Your task to perform on an android device: What's the weather going to be tomorrow? Image 0: 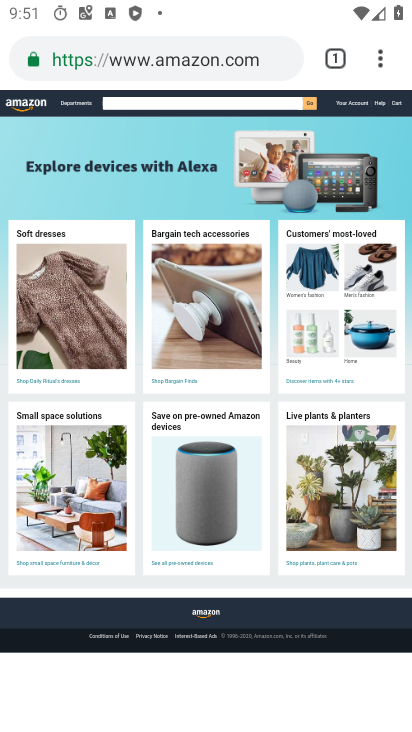
Step 0: press home button
Your task to perform on an android device: What's the weather going to be tomorrow? Image 1: 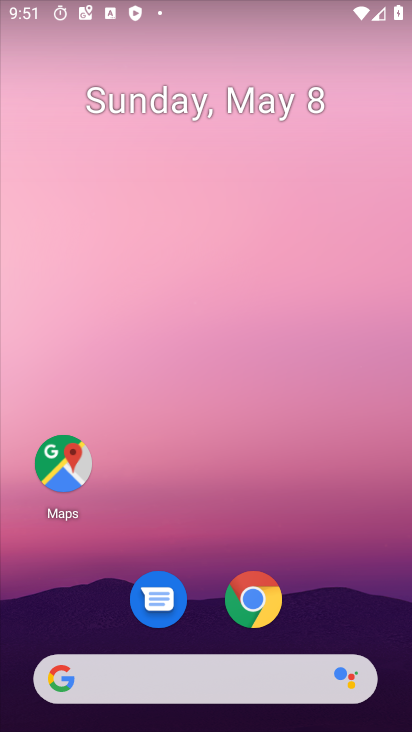
Step 1: drag from (165, 613) to (182, 94)
Your task to perform on an android device: What's the weather going to be tomorrow? Image 2: 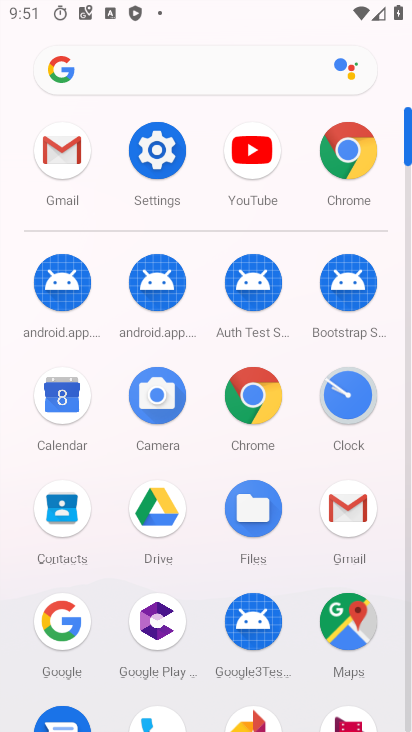
Step 2: drag from (233, 601) to (266, 308)
Your task to perform on an android device: What's the weather going to be tomorrow? Image 3: 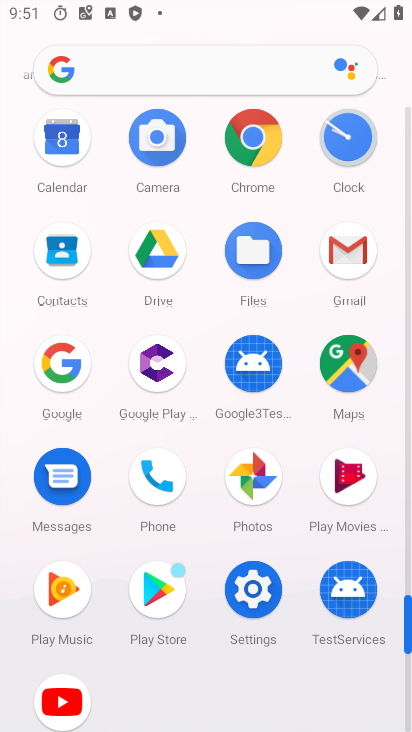
Step 3: click (78, 377)
Your task to perform on an android device: What's the weather going to be tomorrow? Image 4: 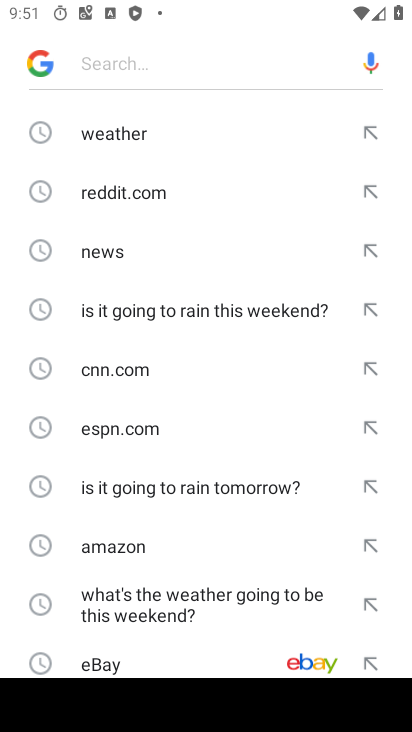
Step 4: click (122, 112)
Your task to perform on an android device: What's the weather going to be tomorrow? Image 5: 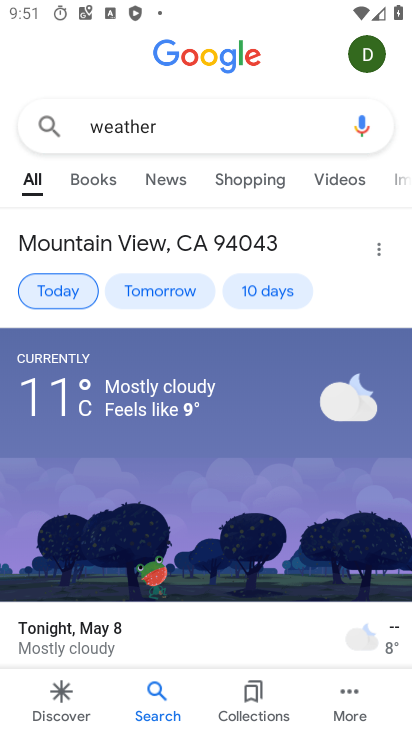
Step 5: click (149, 292)
Your task to perform on an android device: What's the weather going to be tomorrow? Image 6: 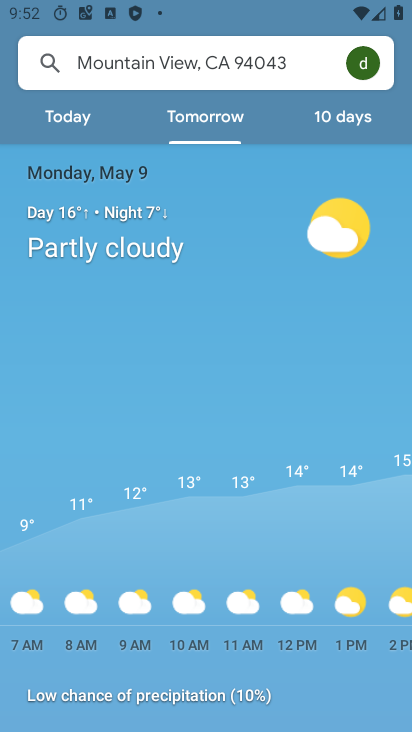
Step 6: task complete